Your task to perform on an android device: turn off smart reply in the gmail app Image 0: 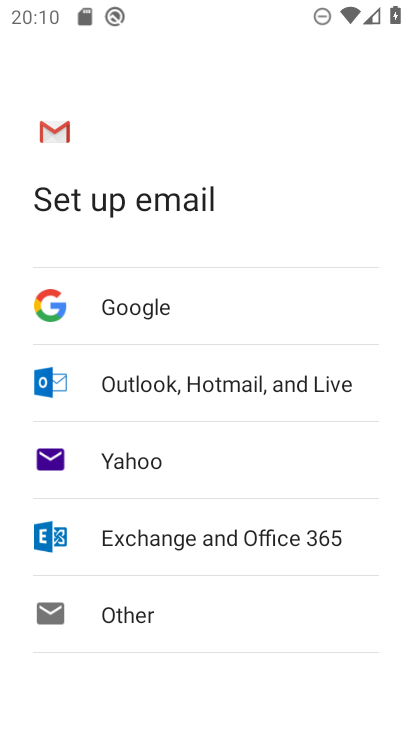
Step 0: press home button
Your task to perform on an android device: turn off smart reply in the gmail app Image 1: 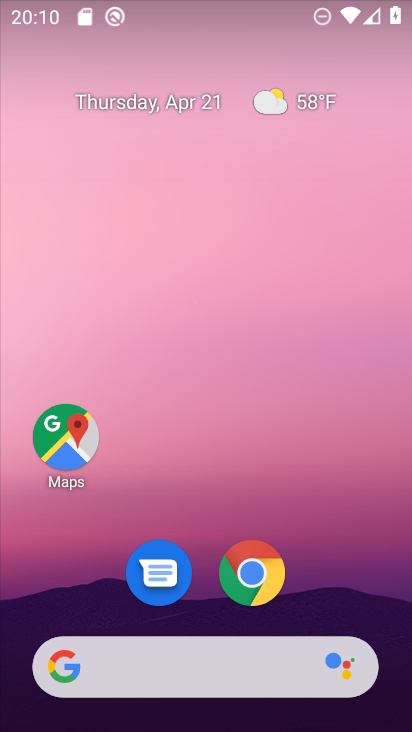
Step 1: drag from (206, 637) to (218, 376)
Your task to perform on an android device: turn off smart reply in the gmail app Image 2: 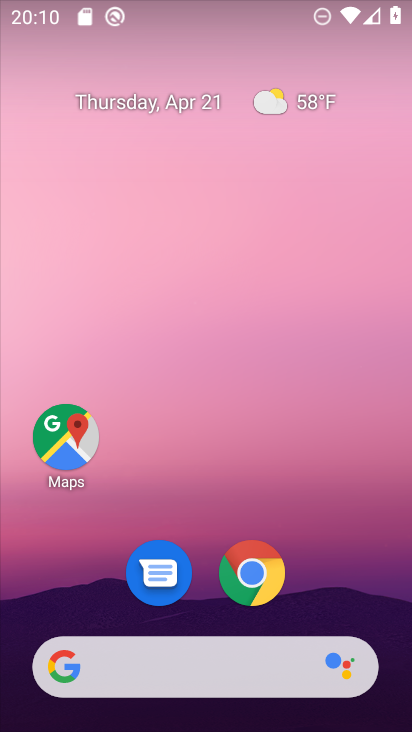
Step 2: drag from (209, 648) to (202, 332)
Your task to perform on an android device: turn off smart reply in the gmail app Image 3: 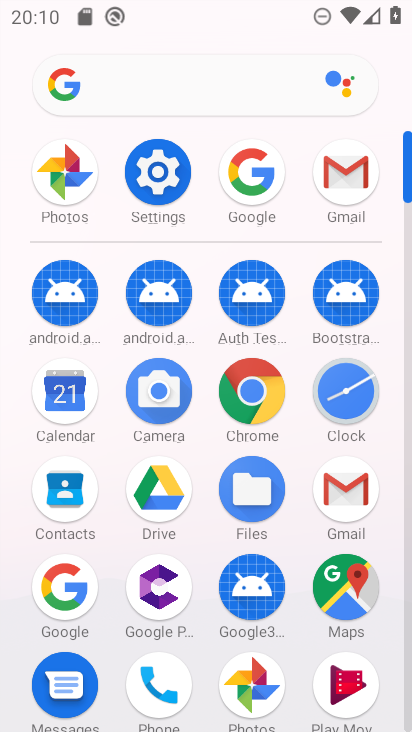
Step 3: click (341, 185)
Your task to perform on an android device: turn off smart reply in the gmail app Image 4: 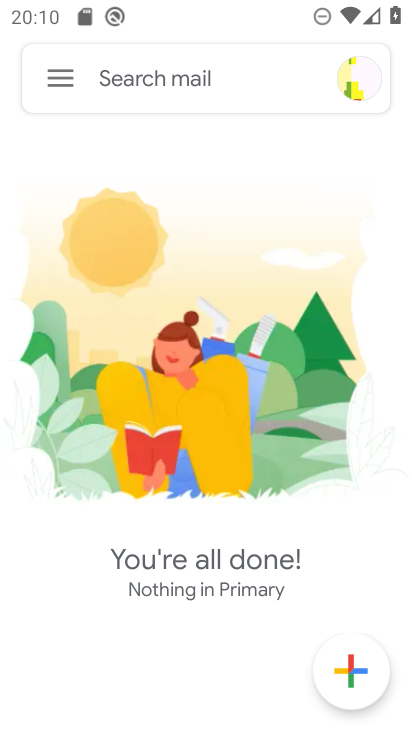
Step 4: click (53, 78)
Your task to perform on an android device: turn off smart reply in the gmail app Image 5: 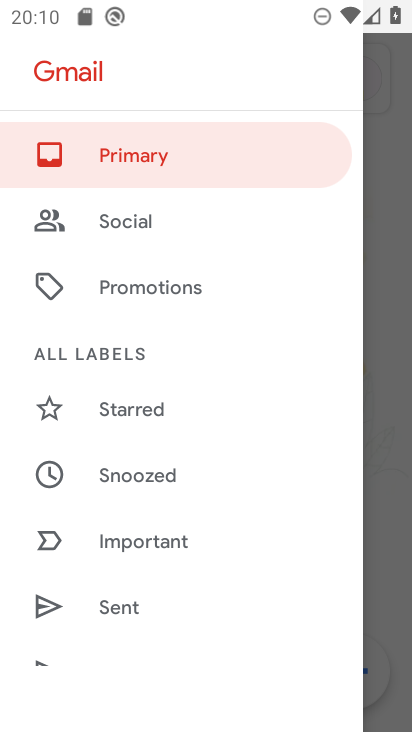
Step 5: drag from (136, 650) to (158, 254)
Your task to perform on an android device: turn off smart reply in the gmail app Image 6: 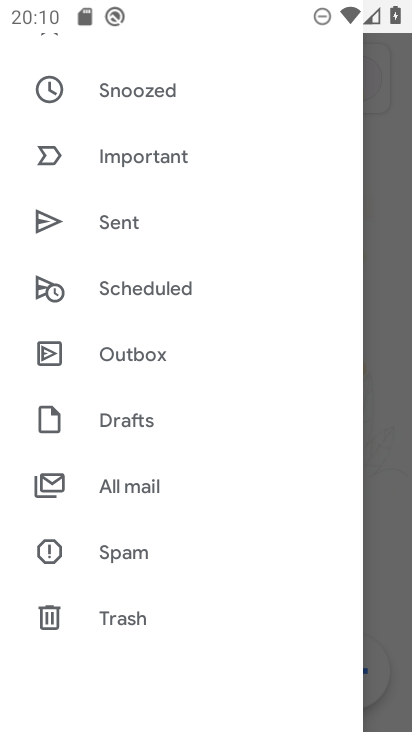
Step 6: drag from (118, 639) to (160, 337)
Your task to perform on an android device: turn off smart reply in the gmail app Image 7: 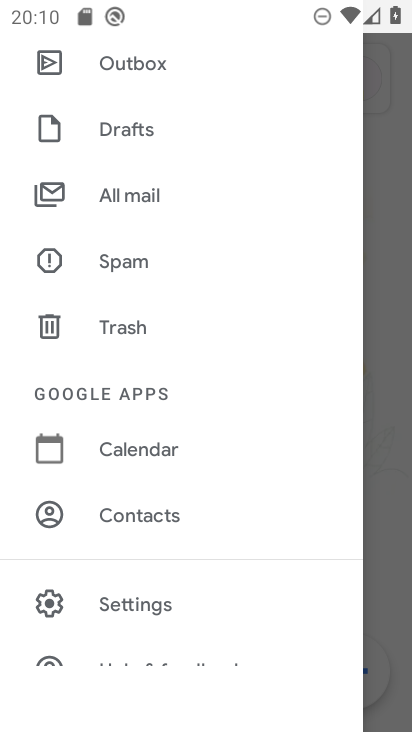
Step 7: click (128, 601)
Your task to perform on an android device: turn off smart reply in the gmail app Image 8: 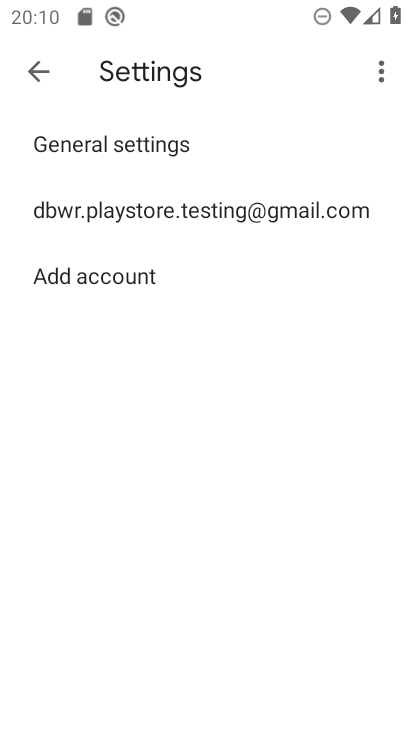
Step 8: click (220, 206)
Your task to perform on an android device: turn off smart reply in the gmail app Image 9: 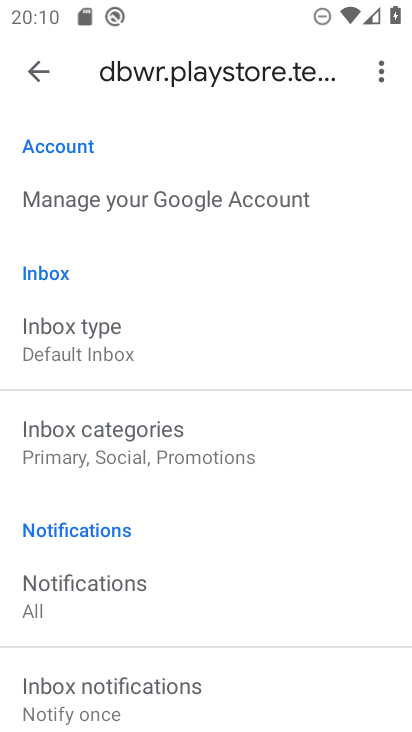
Step 9: drag from (121, 670) to (98, 403)
Your task to perform on an android device: turn off smart reply in the gmail app Image 10: 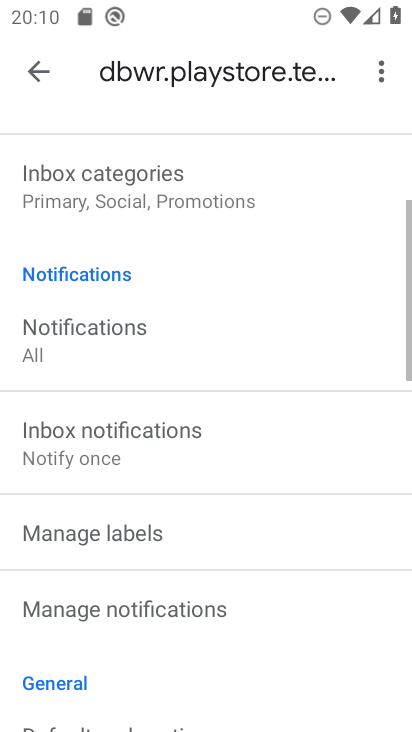
Step 10: drag from (91, 709) to (105, 417)
Your task to perform on an android device: turn off smart reply in the gmail app Image 11: 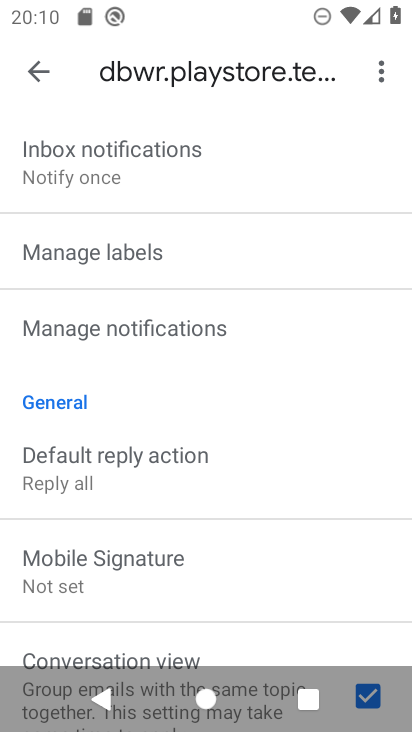
Step 11: drag from (132, 650) to (132, 399)
Your task to perform on an android device: turn off smart reply in the gmail app Image 12: 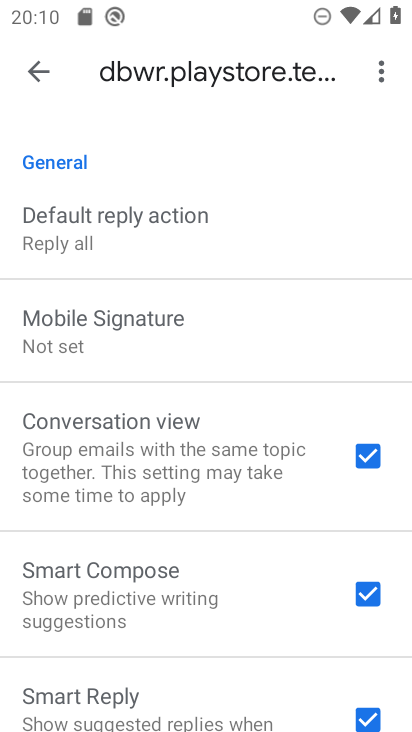
Step 12: drag from (103, 696) to (126, 463)
Your task to perform on an android device: turn off smart reply in the gmail app Image 13: 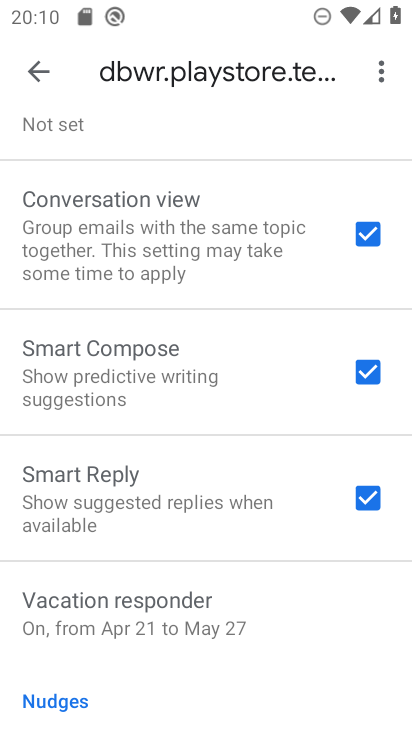
Step 13: click (359, 492)
Your task to perform on an android device: turn off smart reply in the gmail app Image 14: 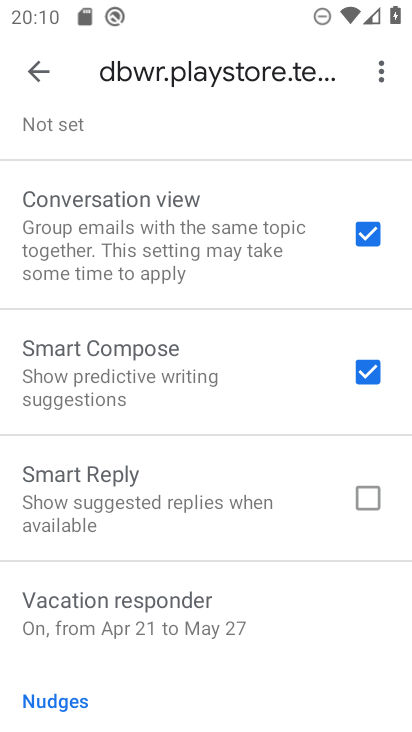
Step 14: task complete